Your task to perform on an android device: empty trash in the gmail app Image 0: 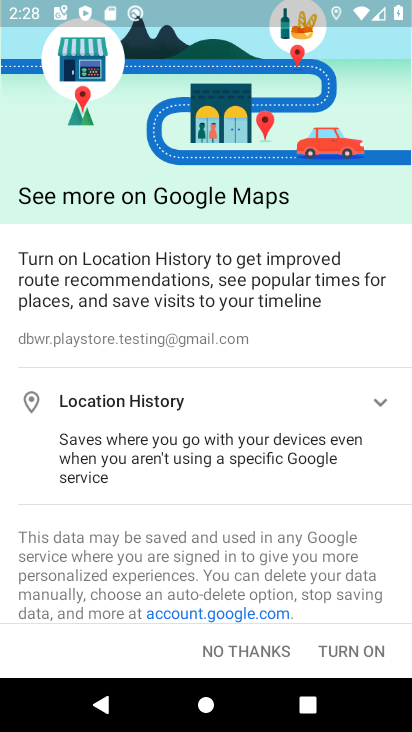
Step 0: press back button
Your task to perform on an android device: empty trash in the gmail app Image 1: 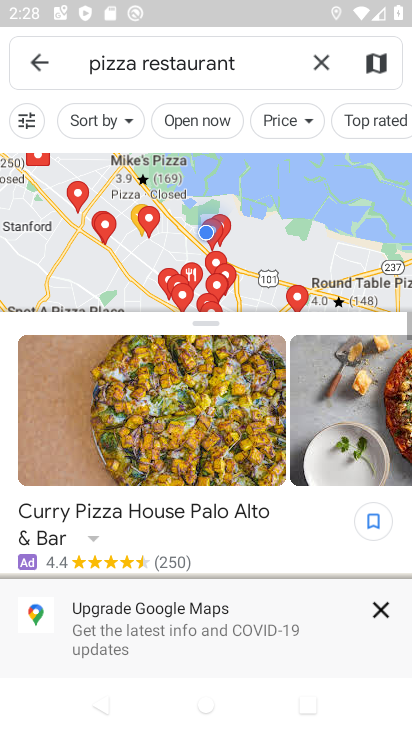
Step 1: press back button
Your task to perform on an android device: empty trash in the gmail app Image 2: 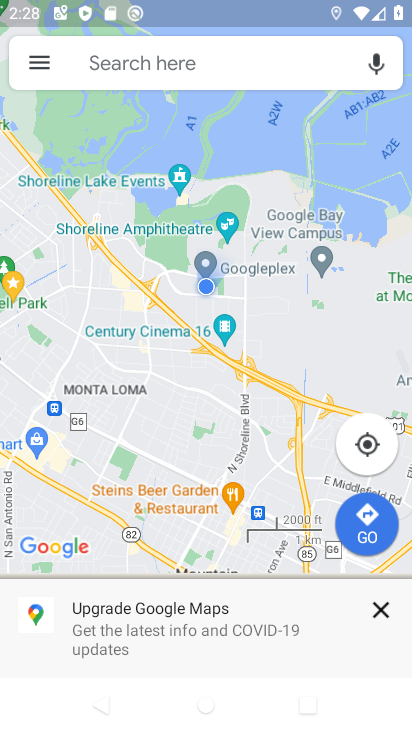
Step 2: press home button
Your task to perform on an android device: empty trash in the gmail app Image 3: 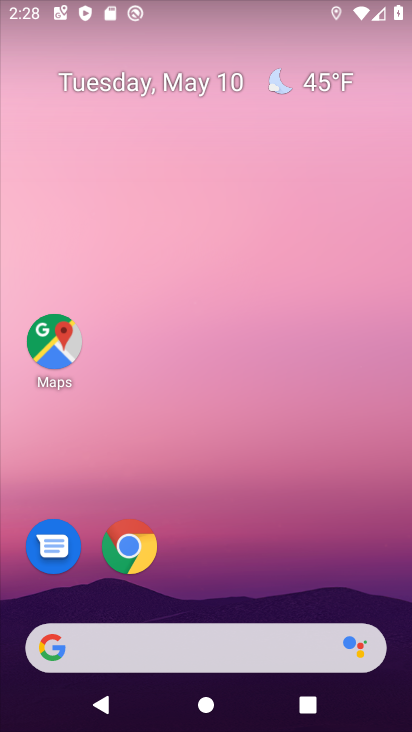
Step 3: drag from (256, 582) to (174, 47)
Your task to perform on an android device: empty trash in the gmail app Image 4: 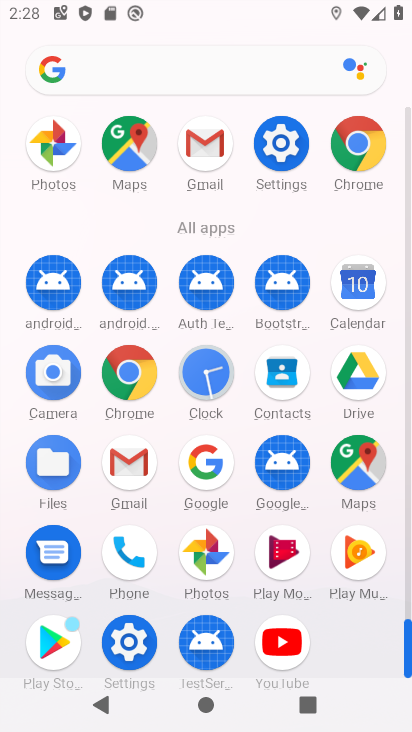
Step 4: drag from (15, 609) to (14, 286)
Your task to perform on an android device: empty trash in the gmail app Image 5: 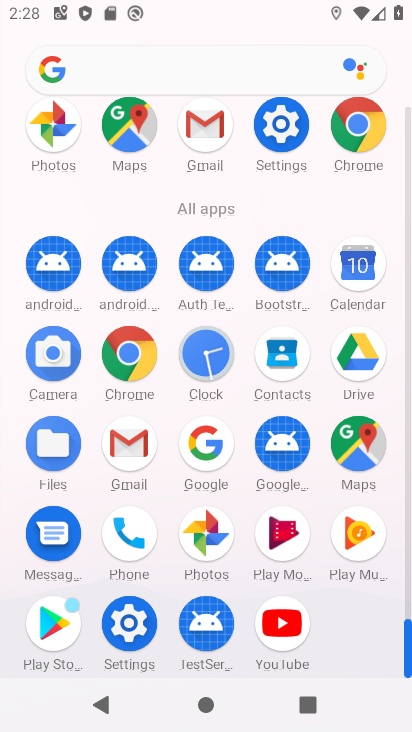
Step 5: click (124, 439)
Your task to perform on an android device: empty trash in the gmail app Image 6: 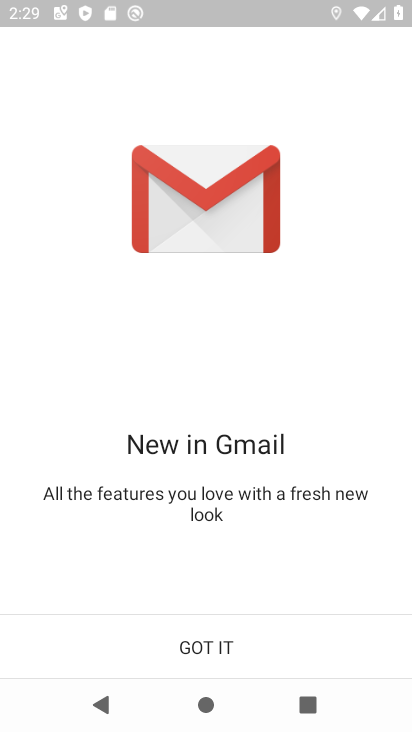
Step 6: click (194, 655)
Your task to perform on an android device: empty trash in the gmail app Image 7: 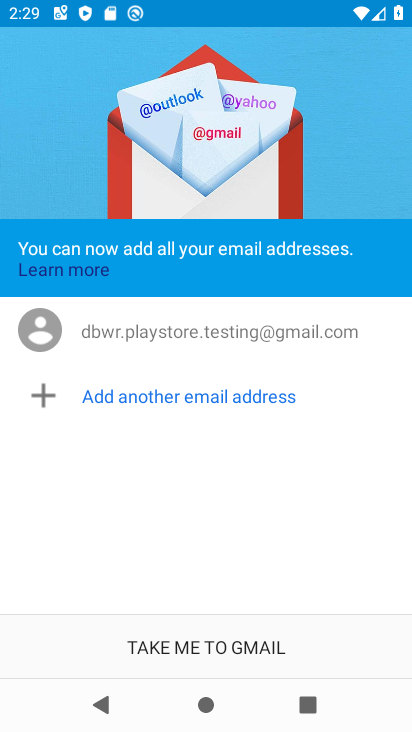
Step 7: click (182, 664)
Your task to perform on an android device: empty trash in the gmail app Image 8: 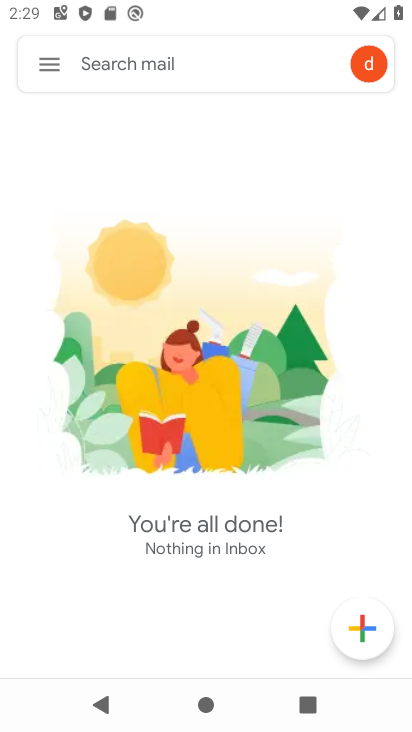
Step 8: click (50, 73)
Your task to perform on an android device: empty trash in the gmail app Image 9: 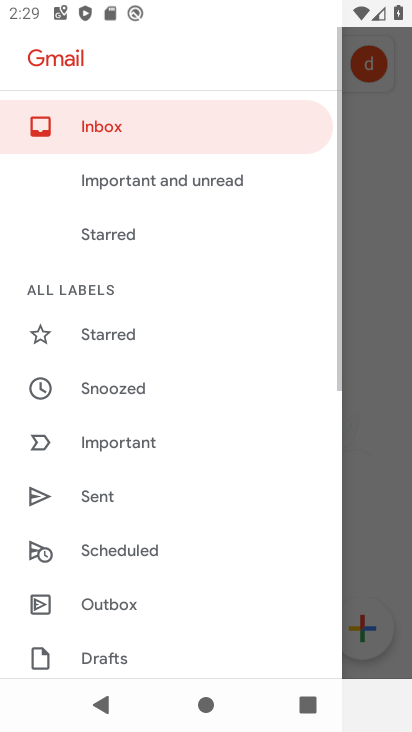
Step 9: drag from (214, 502) to (231, 170)
Your task to perform on an android device: empty trash in the gmail app Image 10: 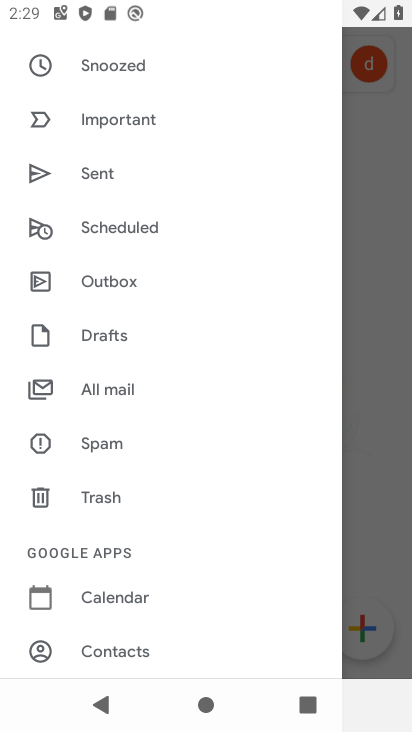
Step 10: click (137, 492)
Your task to perform on an android device: empty trash in the gmail app Image 11: 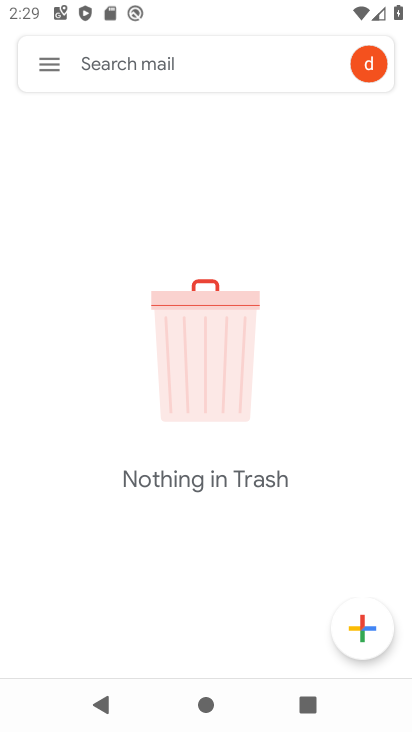
Step 11: task complete